Your task to perform on an android device: Open Google Image 0: 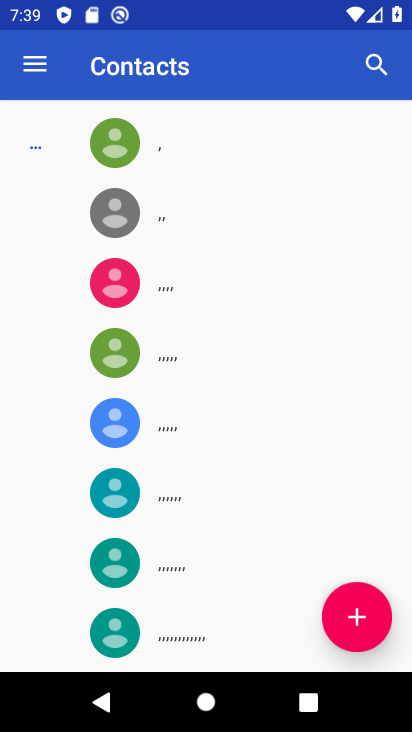
Step 0: press home button
Your task to perform on an android device: Open Google Image 1: 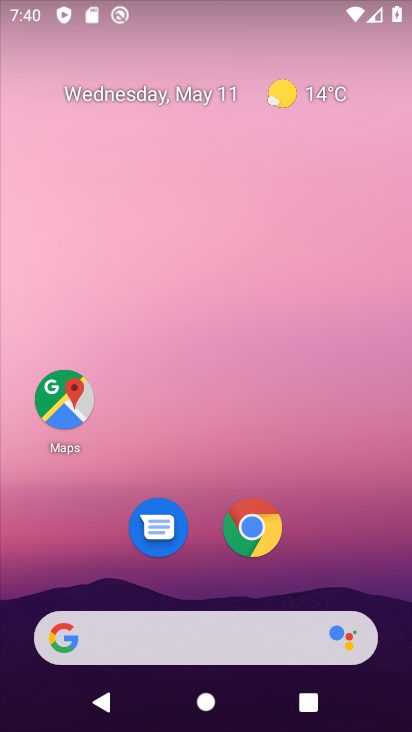
Step 1: drag from (286, 517) to (280, 11)
Your task to perform on an android device: Open Google Image 2: 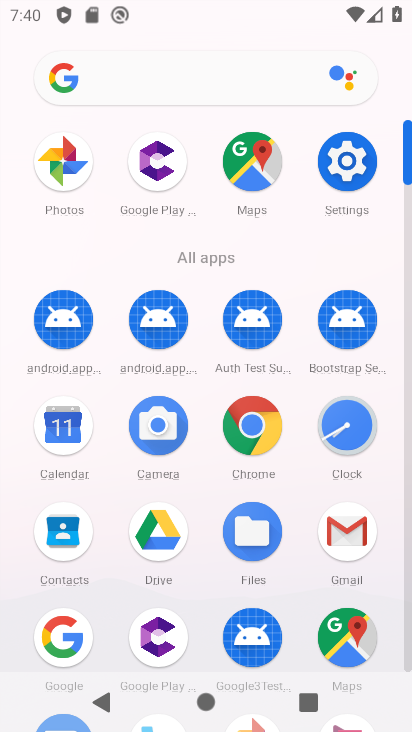
Step 2: click (60, 623)
Your task to perform on an android device: Open Google Image 3: 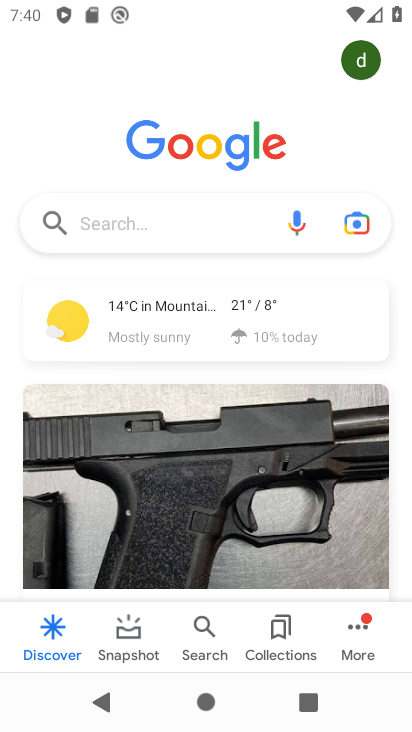
Step 3: task complete